Your task to perform on an android device: change notifications settings Image 0: 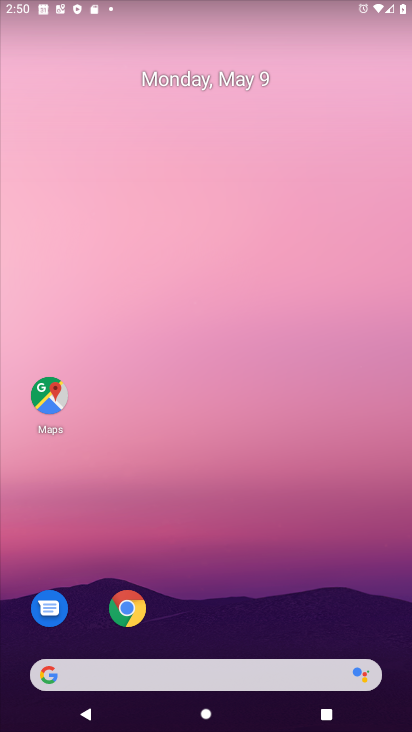
Step 0: drag from (225, 606) to (358, 13)
Your task to perform on an android device: change notifications settings Image 1: 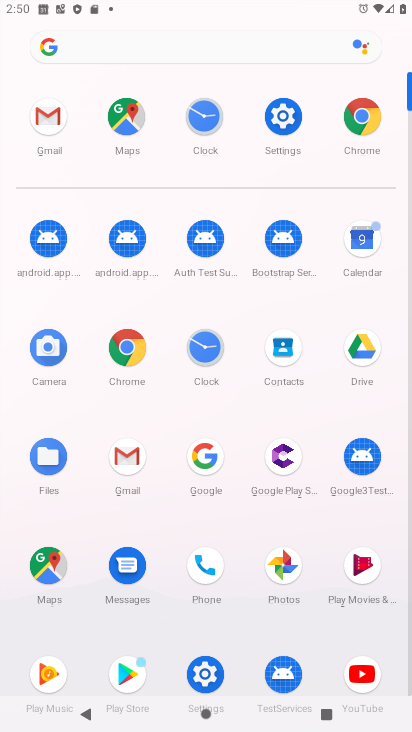
Step 1: click (276, 103)
Your task to perform on an android device: change notifications settings Image 2: 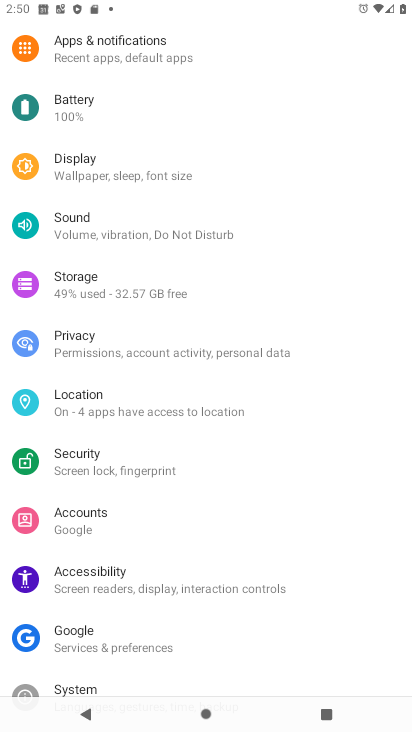
Step 2: click (191, 64)
Your task to perform on an android device: change notifications settings Image 3: 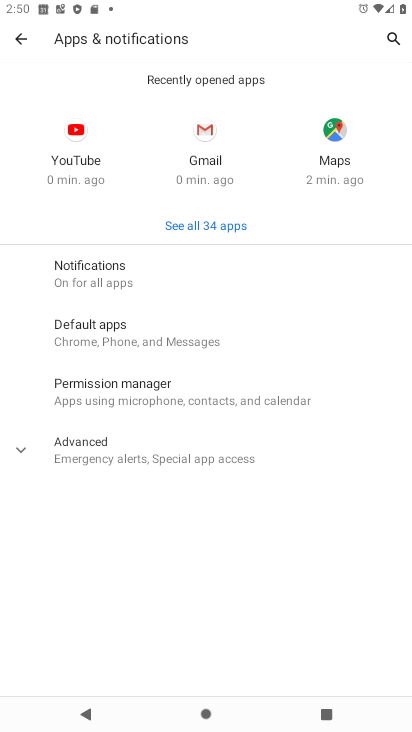
Step 3: click (124, 264)
Your task to perform on an android device: change notifications settings Image 4: 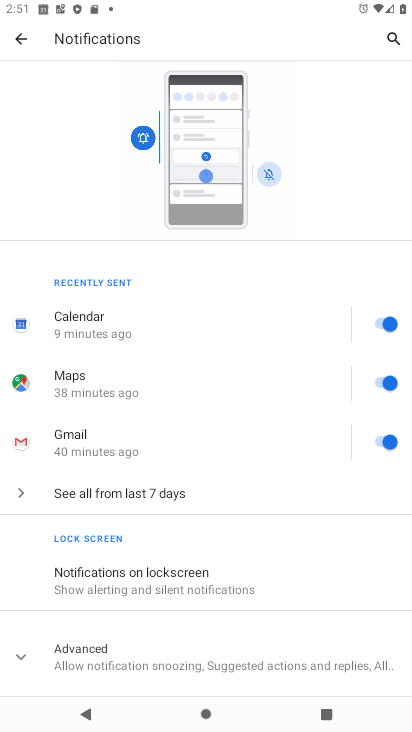
Step 4: click (151, 644)
Your task to perform on an android device: change notifications settings Image 5: 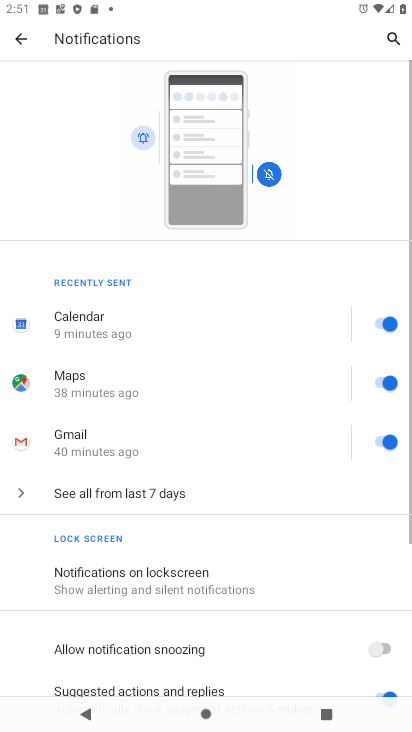
Step 5: drag from (151, 644) to (275, 197)
Your task to perform on an android device: change notifications settings Image 6: 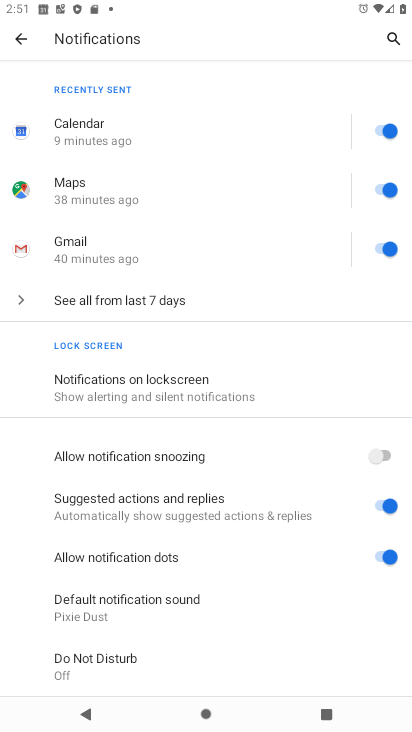
Step 6: click (371, 439)
Your task to perform on an android device: change notifications settings Image 7: 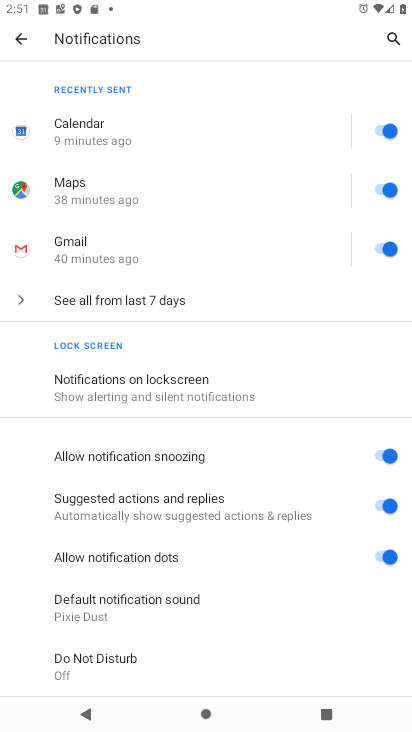
Step 7: click (391, 504)
Your task to perform on an android device: change notifications settings Image 8: 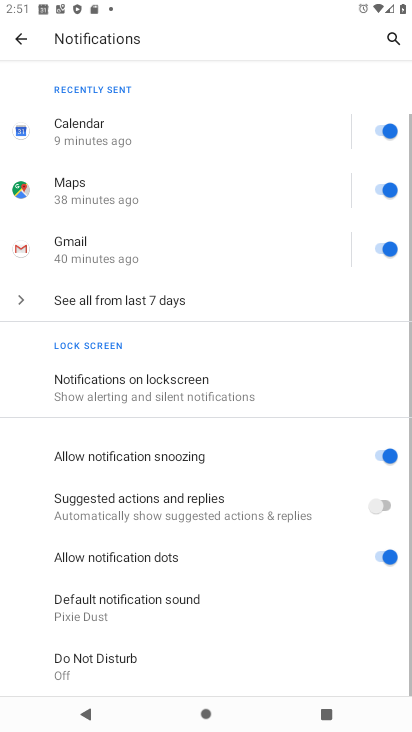
Step 8: click (388, 562)
Your task to perform on an android device: change notifications settings Image 9: 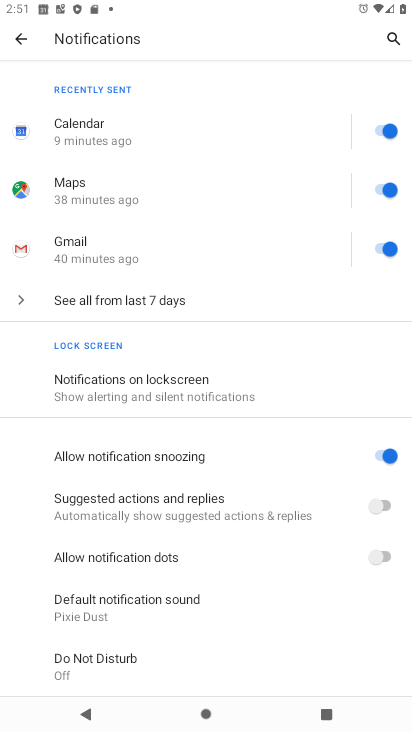
Step 9: task complete